Your task to perform on an android device: Search for seafood restaurants on Google Maps Image 0: 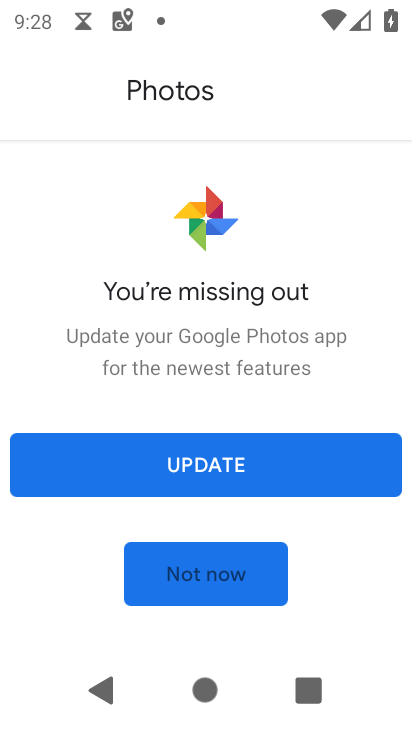
Step 0: press home button
Your task to perform on an android device: Search for seafood restaurants on Google Maps Image 1: 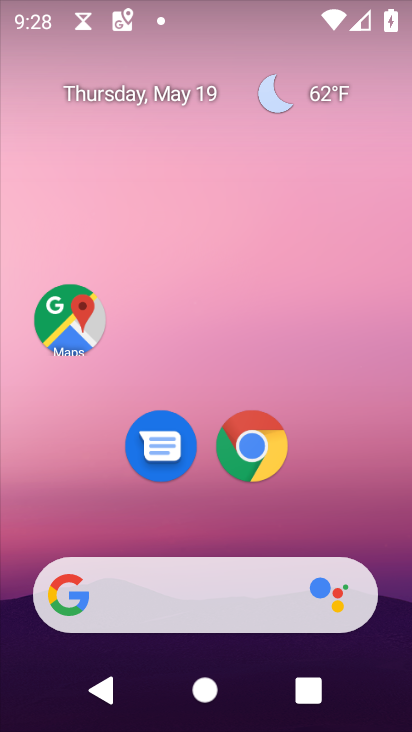
Step 1: click (60, 316)
Your task to perform on an android device: Search for seafood restaurants on Google Maps Image 2: 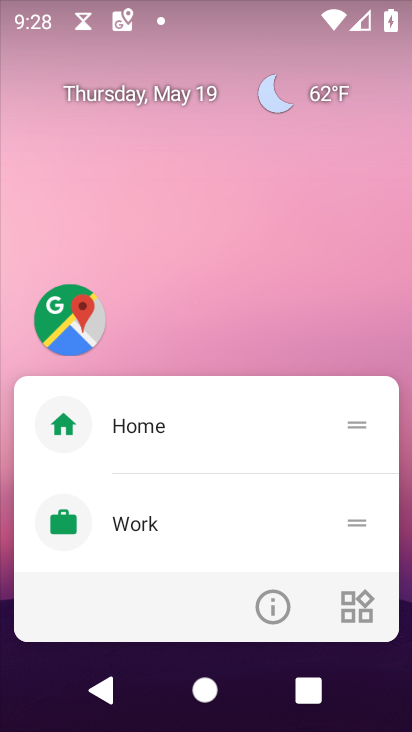
Step 2: click (60, 316)
Your task to perform on an android device: Search for seafood restaurants on Google Maps Image 3: 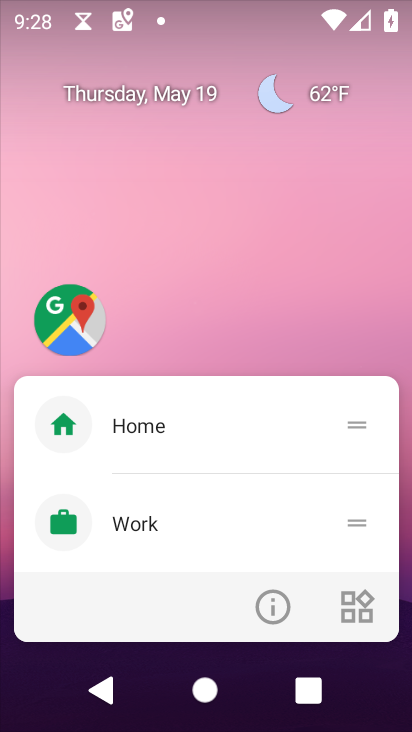
Step 3: click (68, 325)
Your task to perform on an android device: Search for seafood restaurants on Google Maps Image 4: 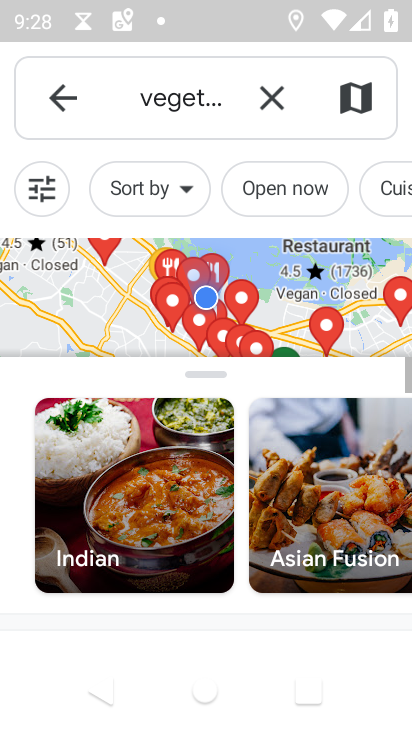
Step 4: click (263, 102)
Your task to perform on an android device: Search for seafood restaurants on Google Maps Image 5: 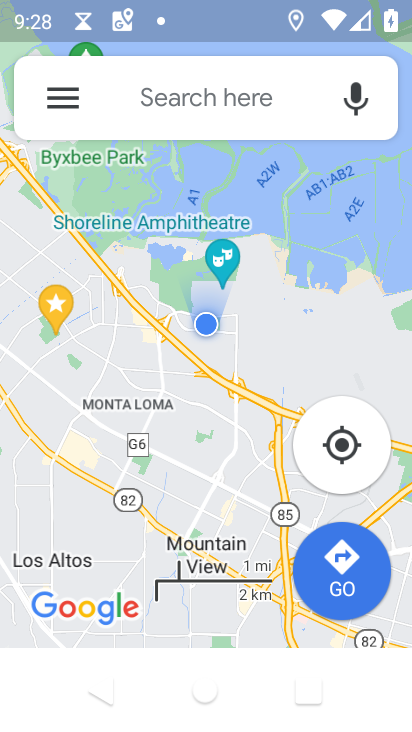
Step 5: click (184, 100)
Your task to perform on an android device: Search for seafood restaurants on Google Maps Image 6: 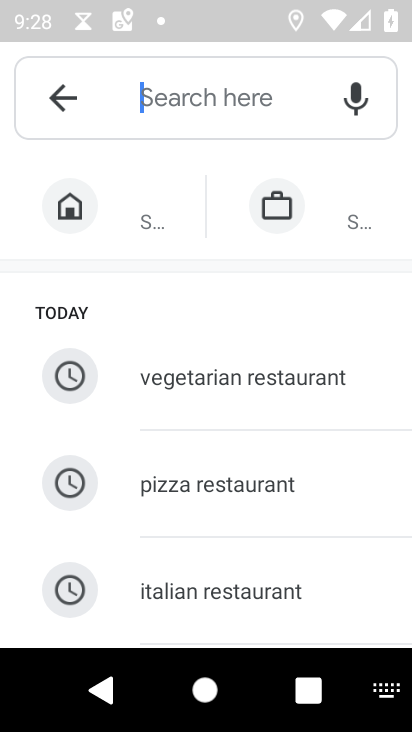
Step 6: type "seafood restaurants"
Your task to perform on an android device: Search for seafood restaurants on Google Maps Image 7: 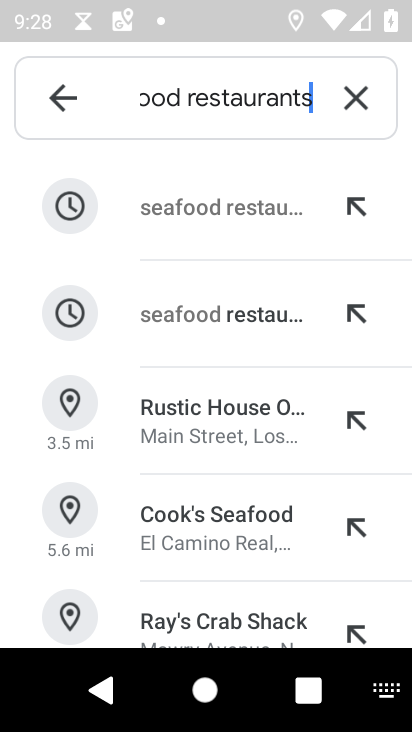
Step 7: click (156, 240)
Your task to perform on an android device: Search for seafood restaurants on Google Maps Image 8: 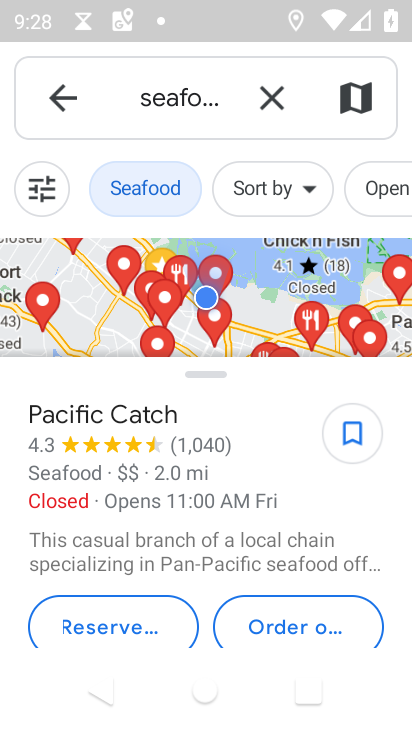
Step 8: task complete